Your task to perform on an android device: uninstall "Skype" Image 0: 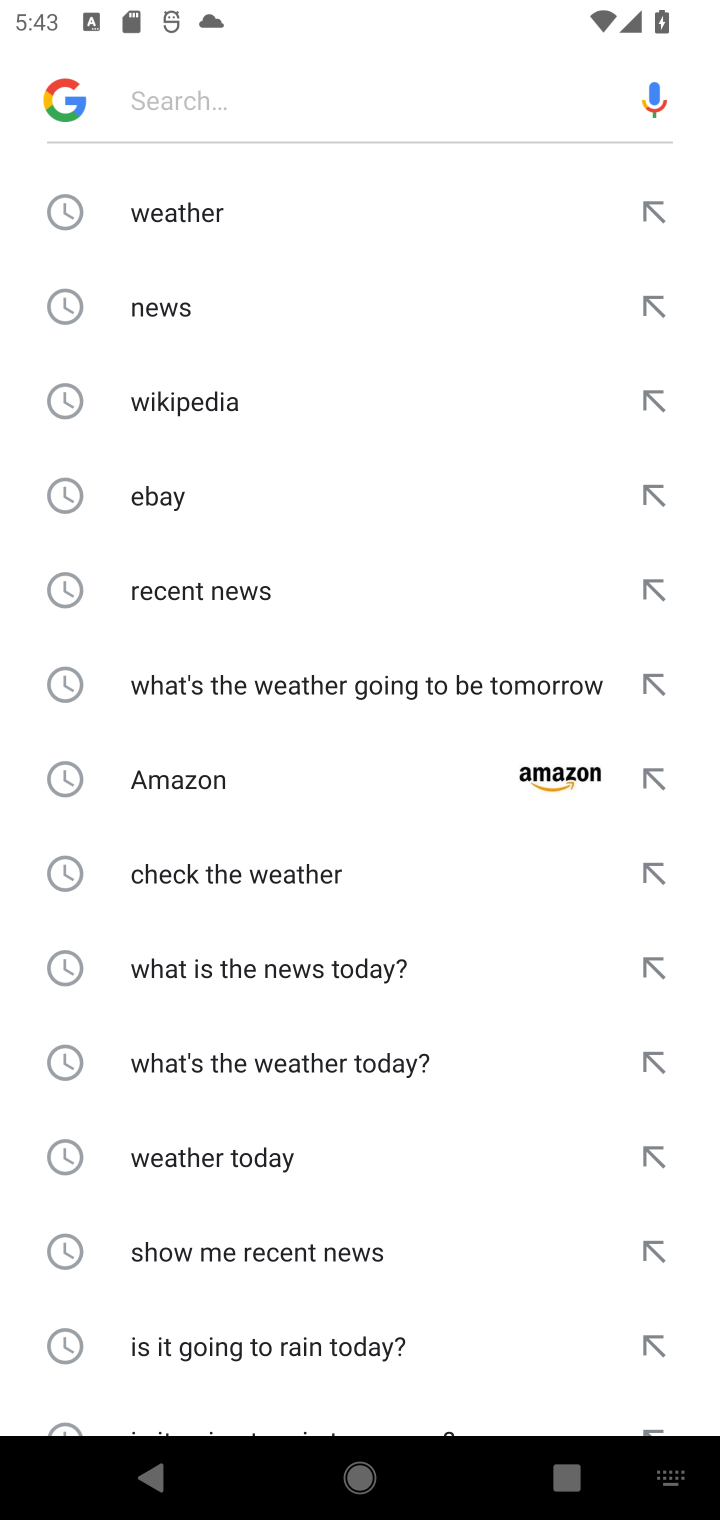
Step 0: press home button
Your task to perform on an android device: uninstall "Skype" Image 1: 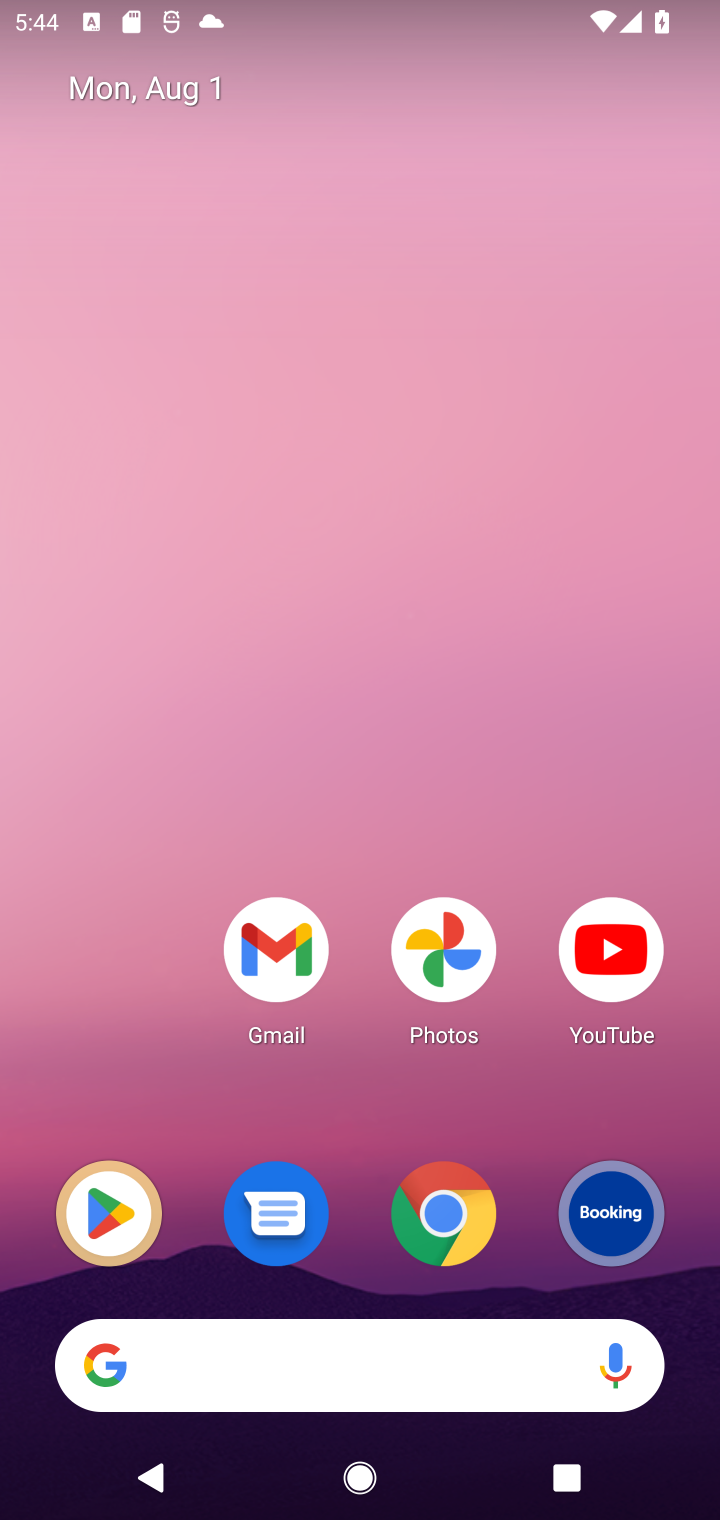
Step 1: drag from (527, 1139) to (536, 165)
Your task to perform on an android device: uninstall "Skype" Image 2: 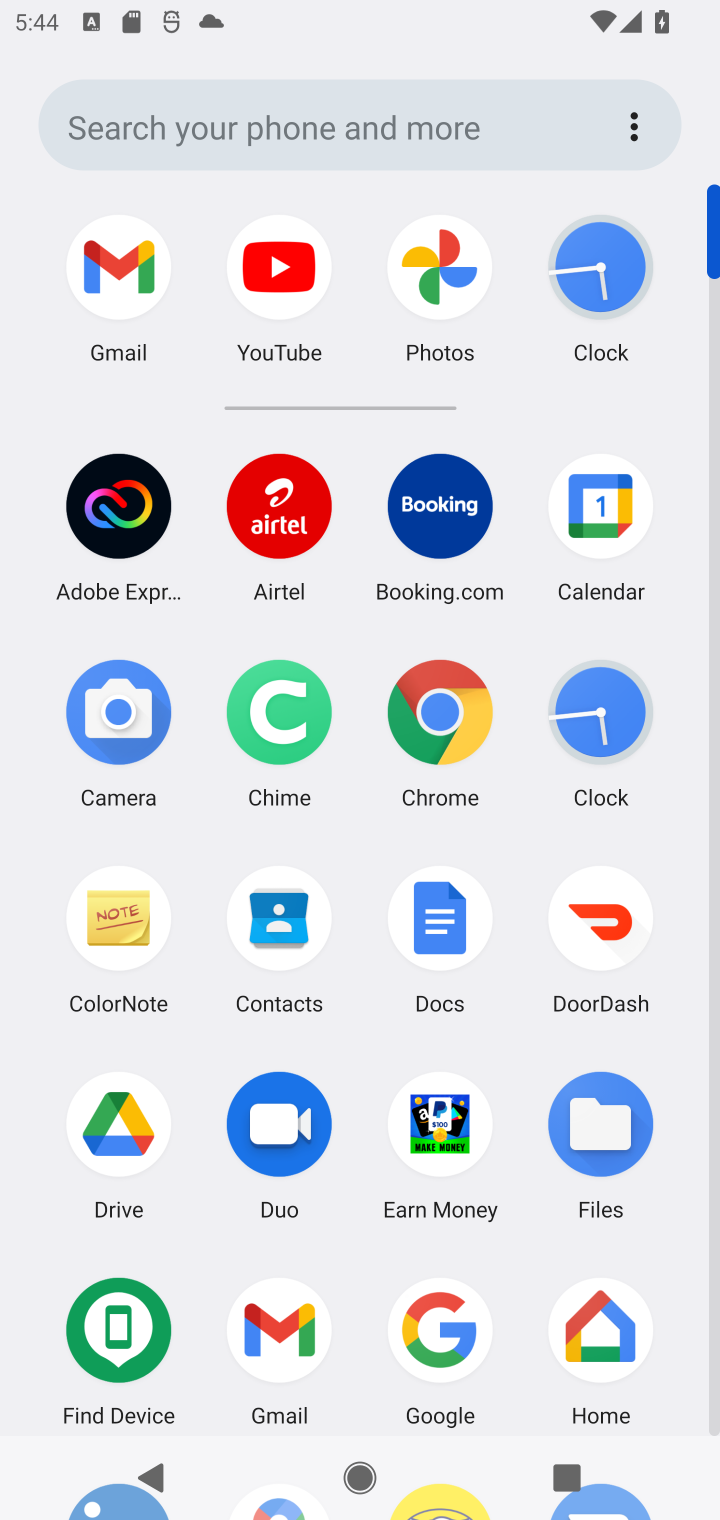
Step 2: drag from (490, 1178) to (562, 441)
Your task to perform on an android device: uninstall "Skype" Image 3: 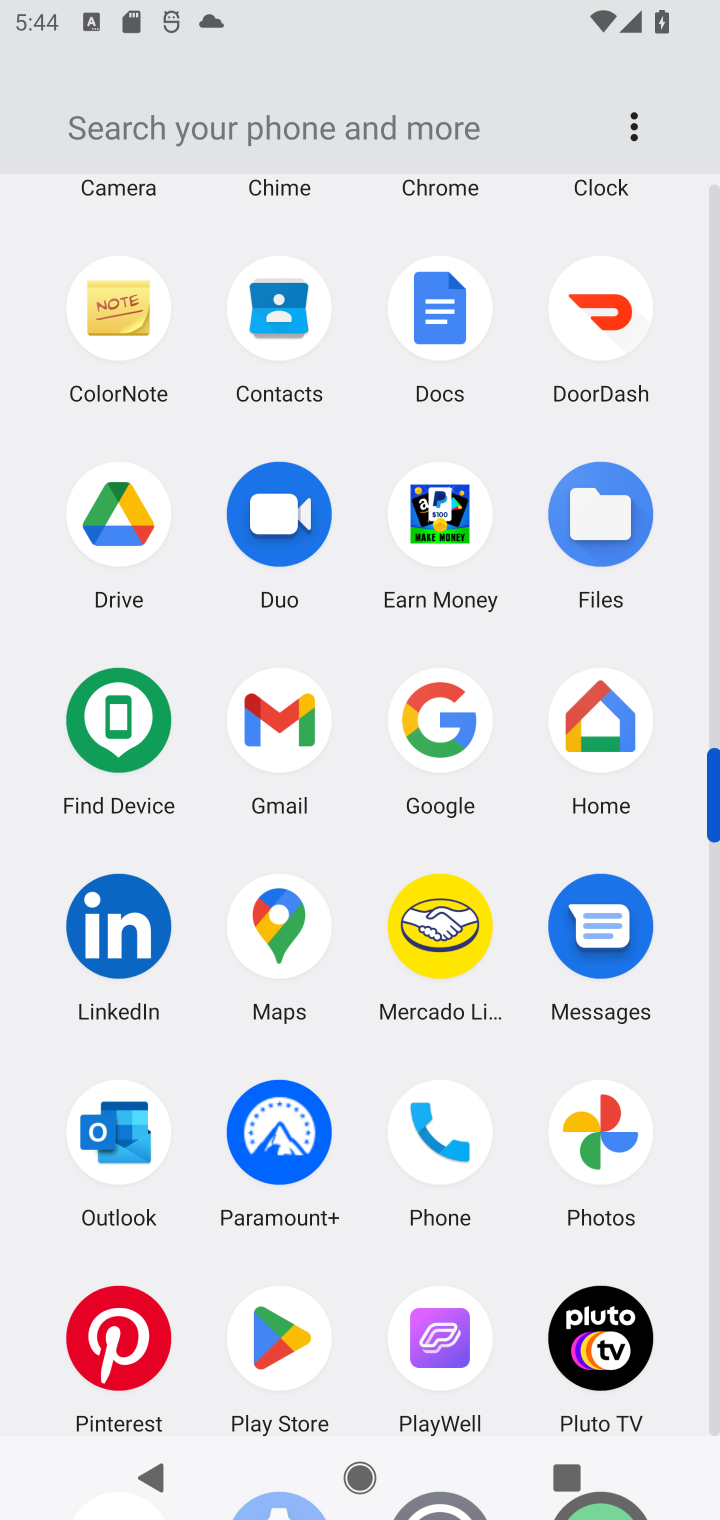
Step 3: click (276, 1351)
Your task to perform on an android device: uninstall "Skype" Image 4: 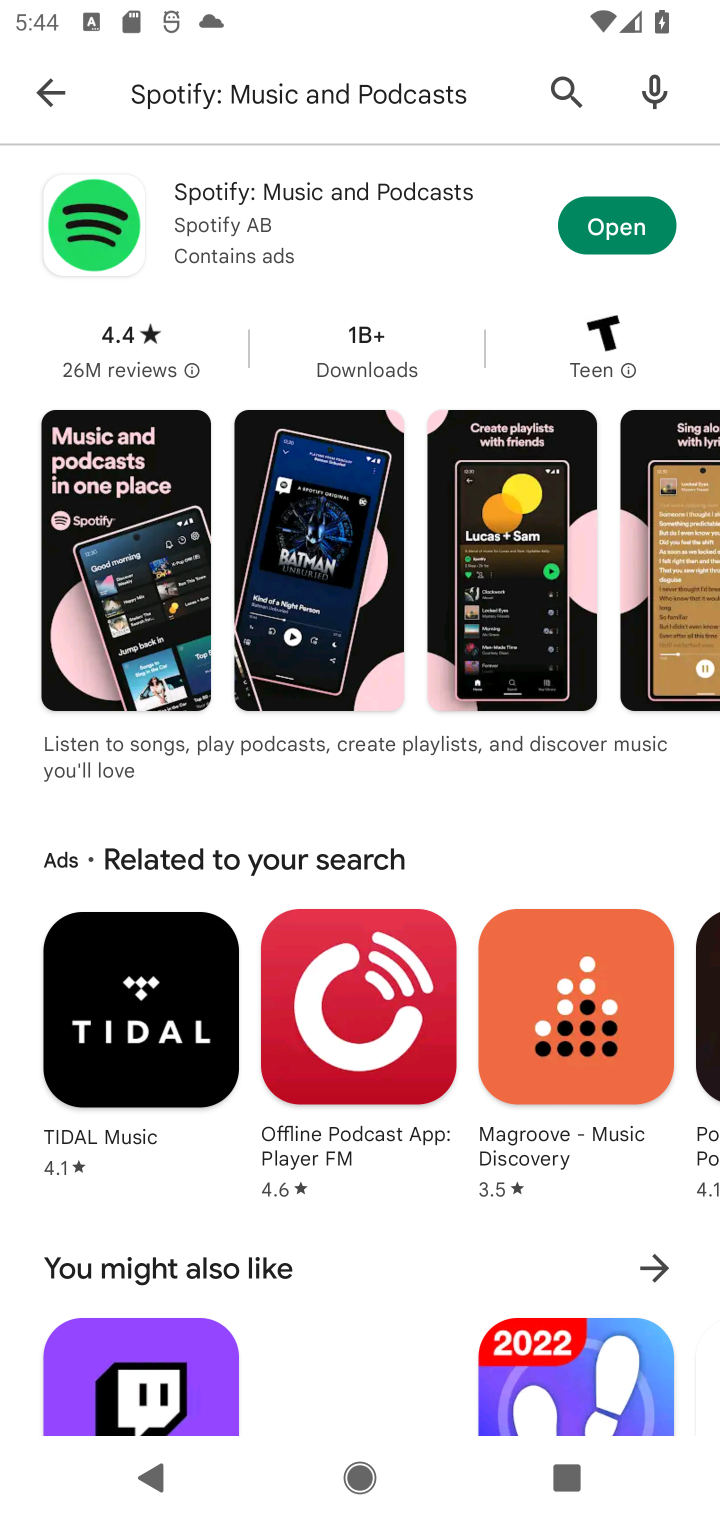
Step 4: click (469, 117)
Your task to perform on an android device: uninstall "Skype" Image 5: 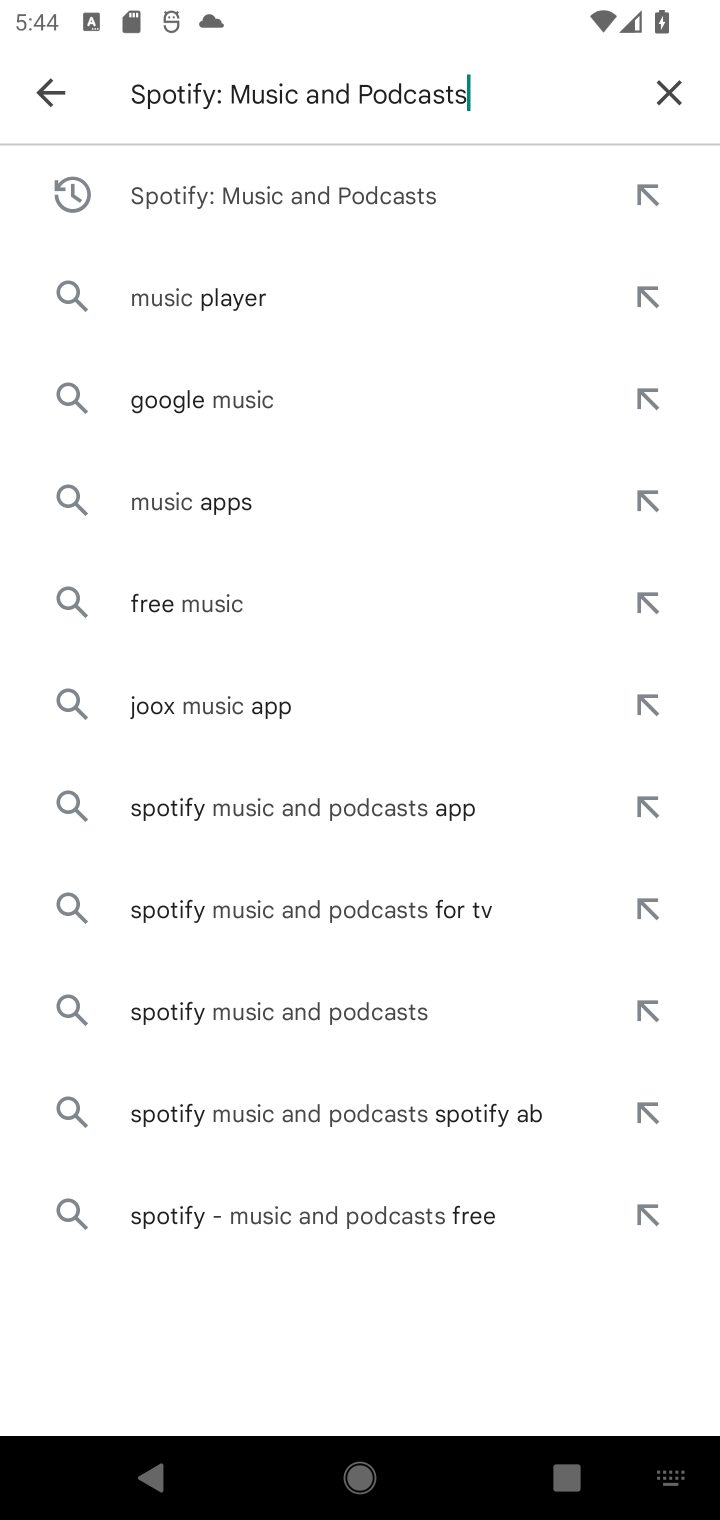
Step 5: click (656, 97)
Your task to perform on an android device: uninstall "Skype" Image 6: 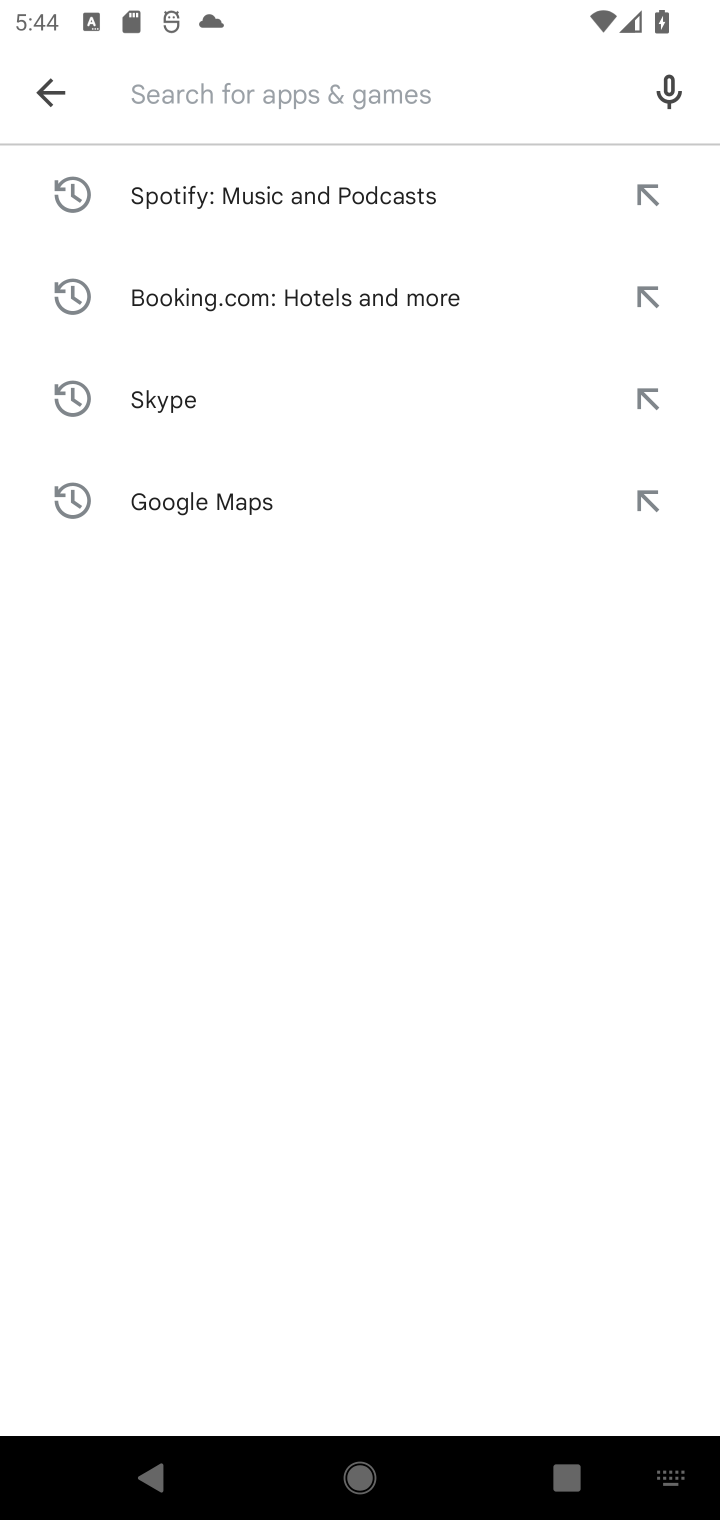
Step 6: click (224, 416)
Your task to perform on an android device: uninstall "Skype" Image 7: 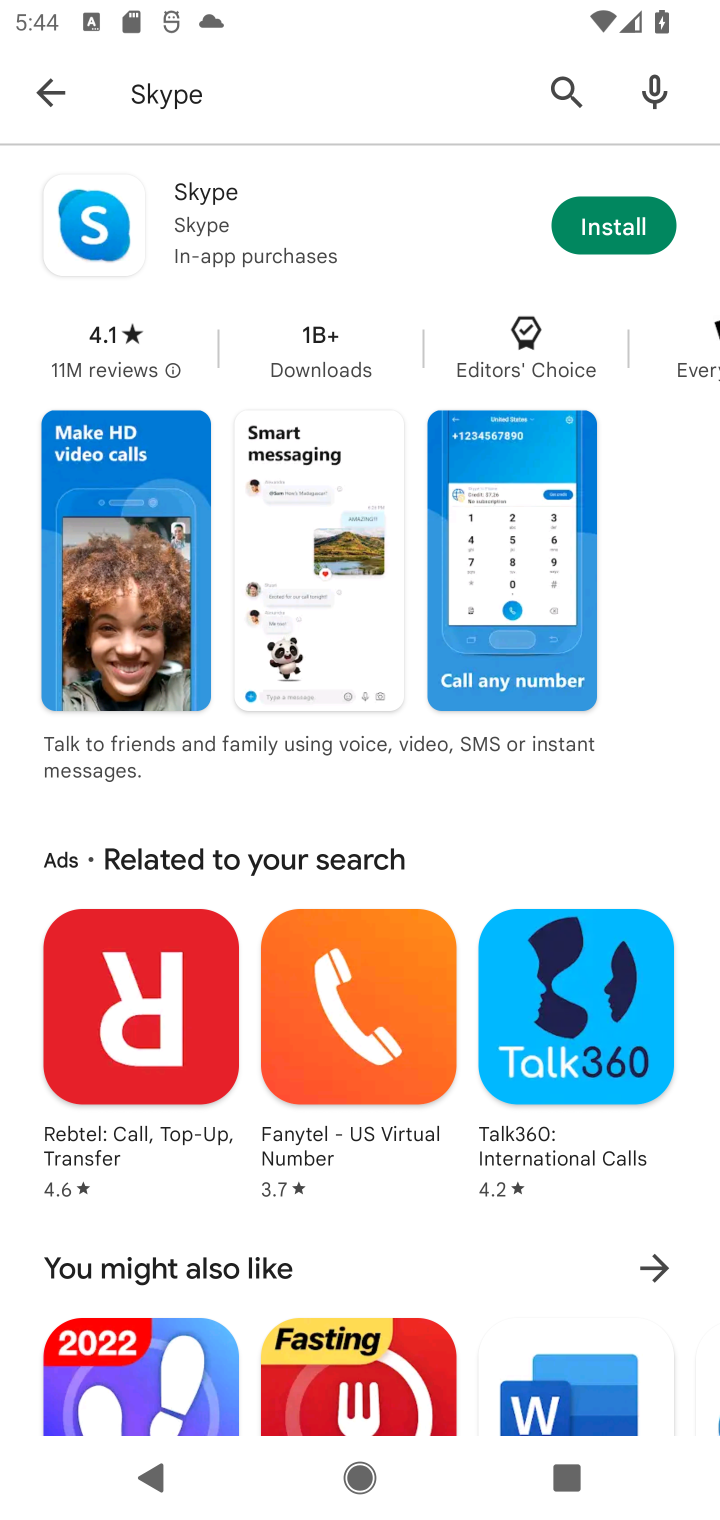
Step 7: task complete